Your task to perform on an android device: open app "Google Duo" Image 0: 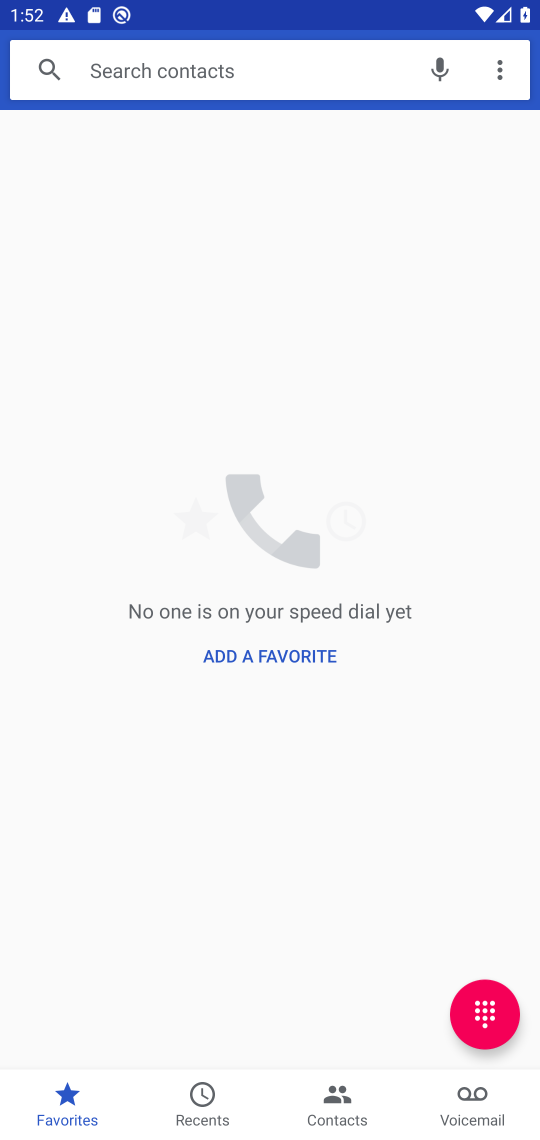
Step 0: press home button
Your task to perform on an android device: open app "Google Duo" Image 1: 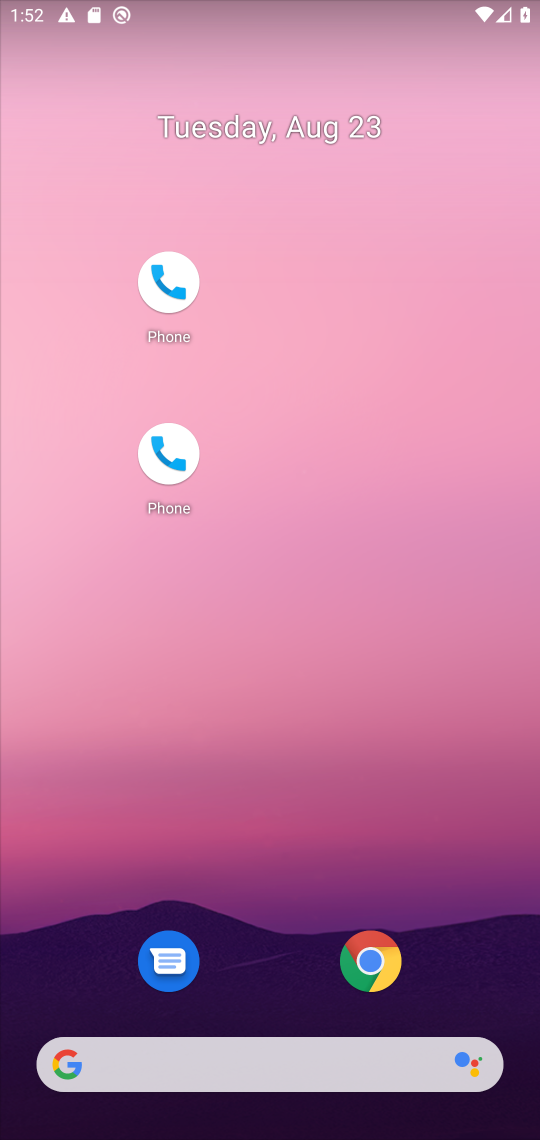
Step 1: drag from (282, 997) to (155, 113)
Your task to perform on an android device: open app "Google Duo" Image 2: 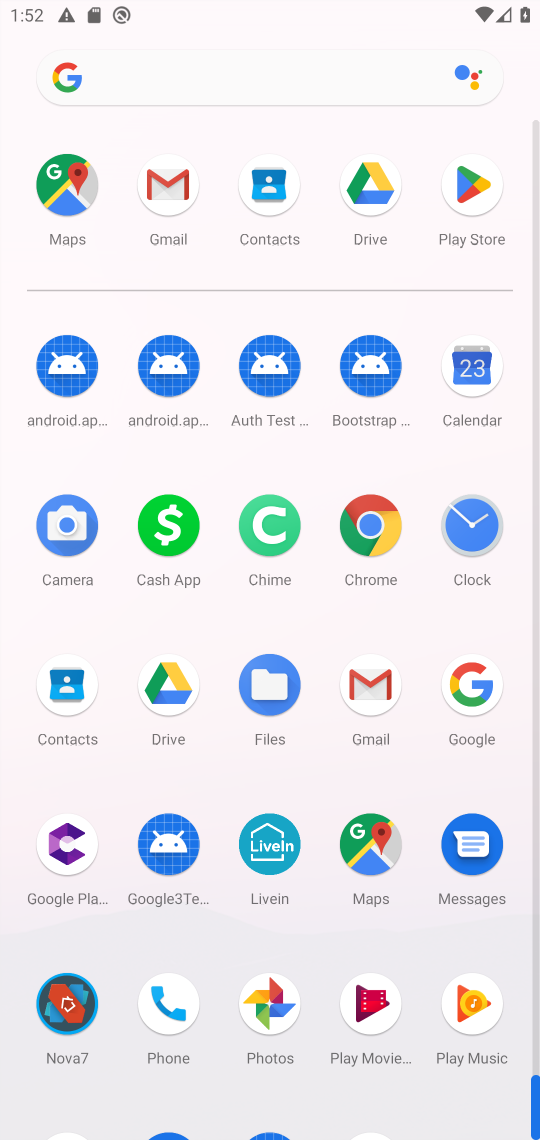
Step 2: click (464, 216)
Your task to perform on an android device: open app "Google Duo" Image 3: 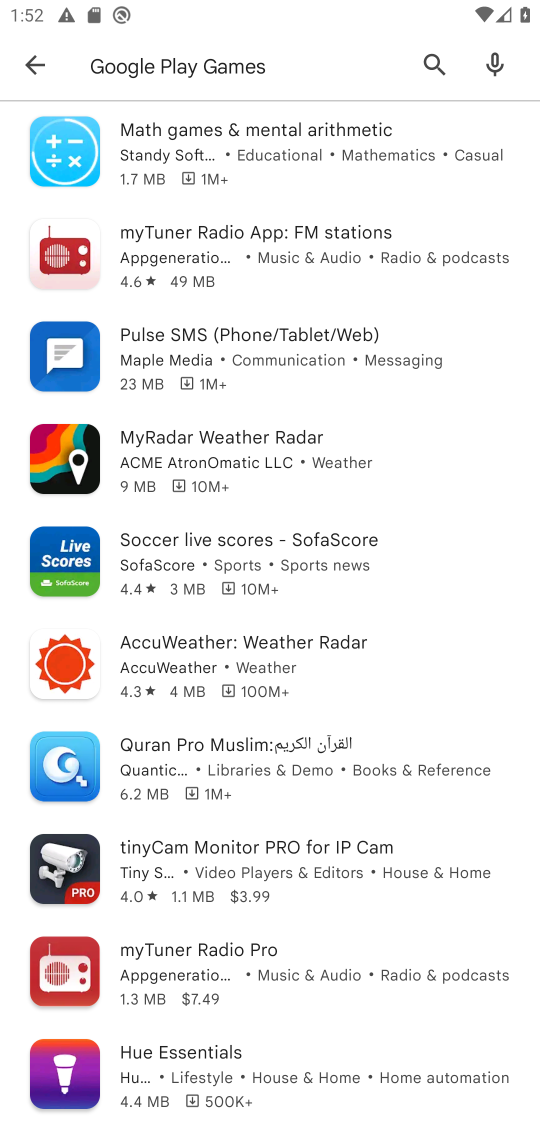
Step 3: click (437, 77)
Your task to perform on an android device: open app "Google Duo" Image 4: 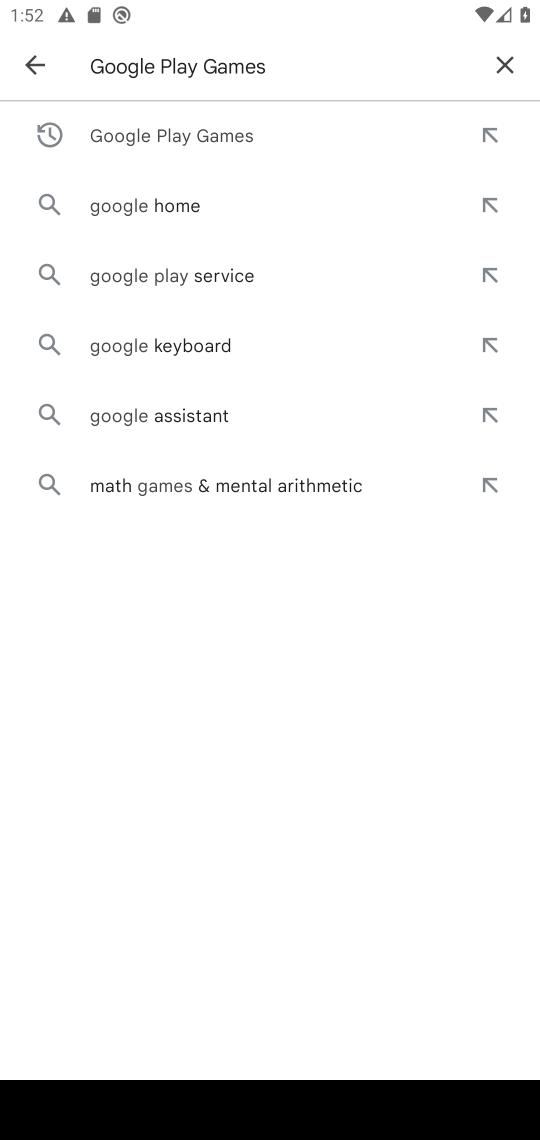
Step 4: click (512, 77)
Your task to perform on an android device: open app "Google Duo" Image 5: 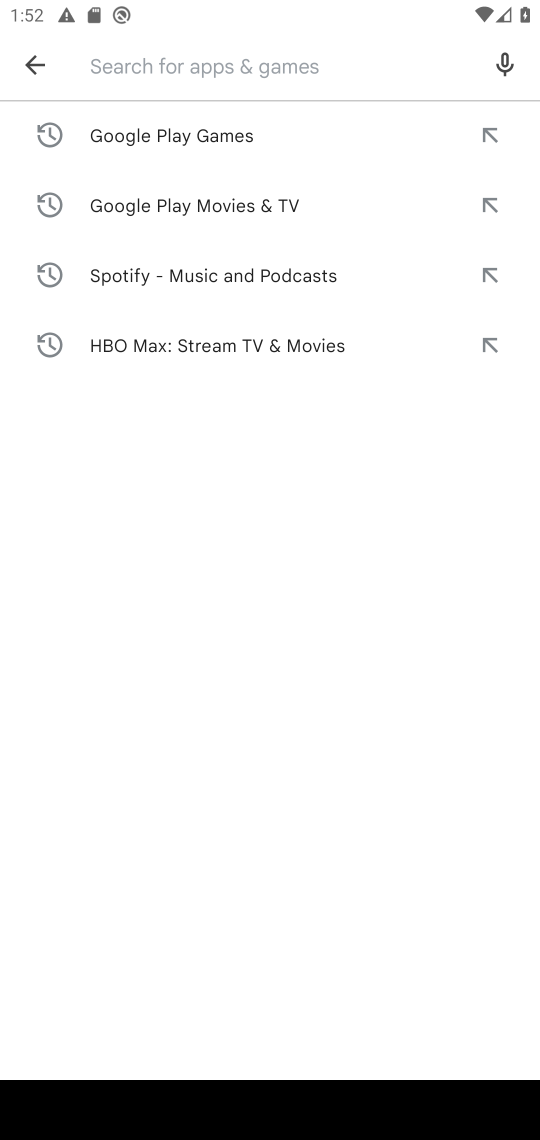
Step 5: type "google duo"
Your task to perform on an android device: open app "Google Duo" Image 6: 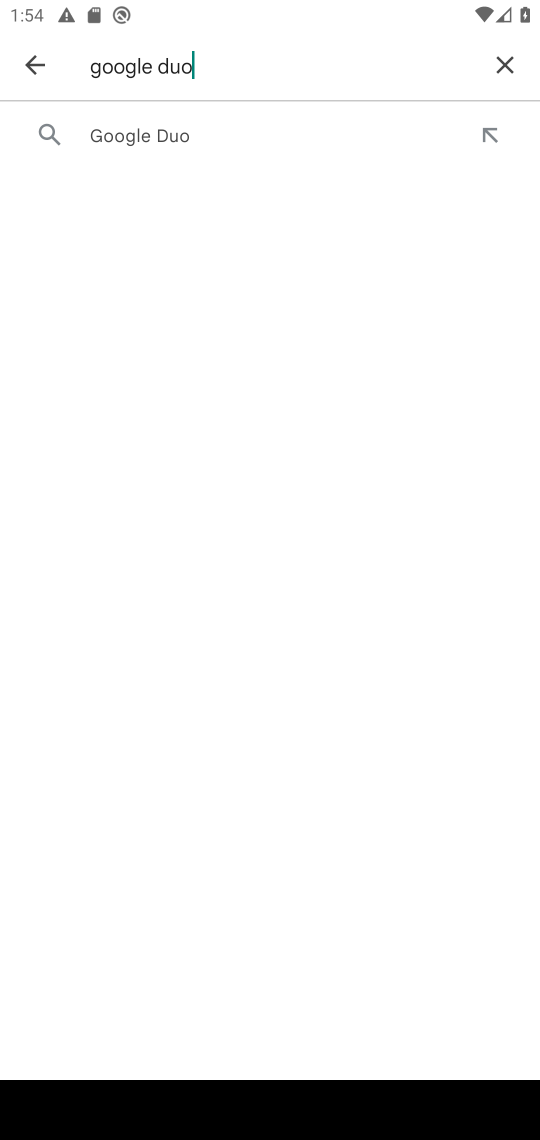
Step 6: click (119, 156)
Your task to perform on an android device: open app "Google Duo" Image 7: 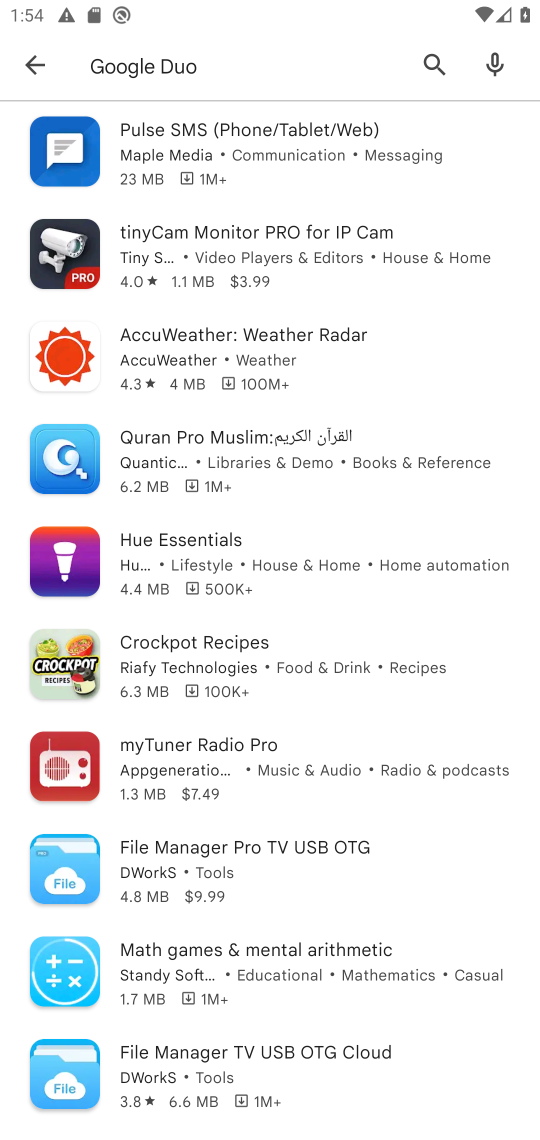
Step 7: task complete